Your task to perform on an android device: clear all cookies in the chrome app Image 0: 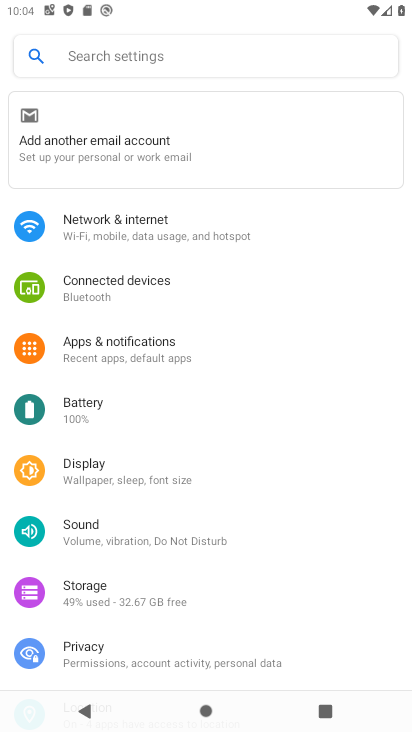
Step 0: press home button
Your task to perform on an android device: clear all cookies in the chrome app Image 1: 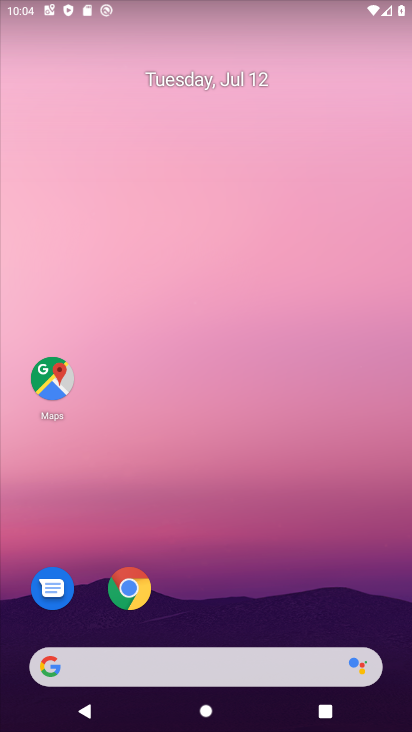
Step 1: click (132, 600)
Your task to perform on an android device: clear all cookies in the chrome app Image 2: 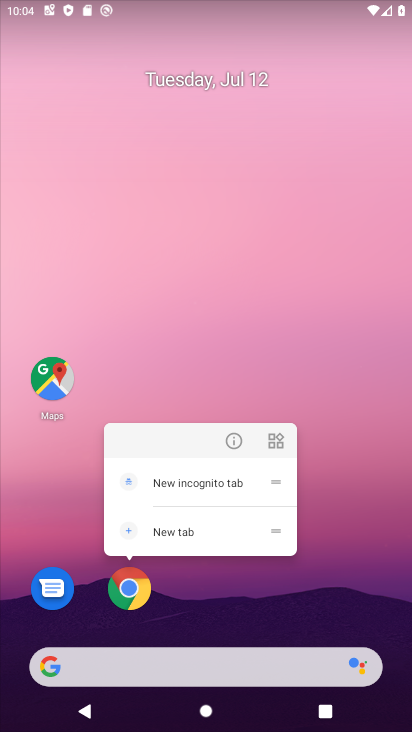
Step 2: click (132, 600)
Your task to perform on an android device: clear all cookies in the chrome app Image 3: 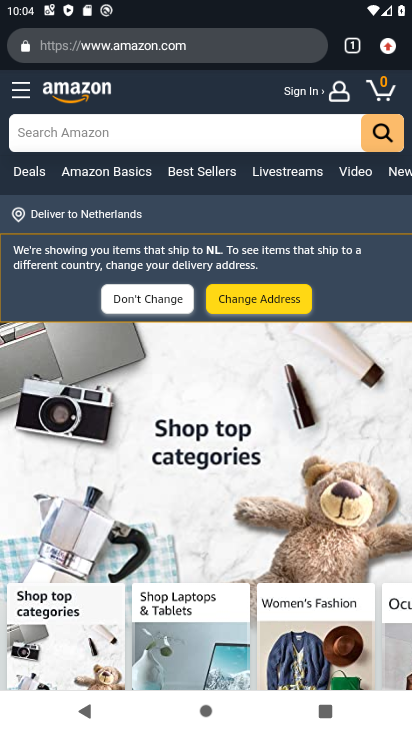
Step 3: drag from (394, 48) to (261, 595)
Your task to perform on an android device: clear all cookies in the chrome app Image 4: 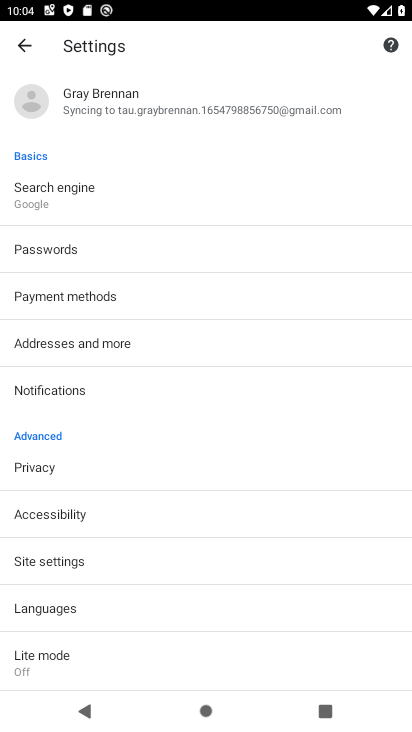
Step 4: click (64, 468)
Your task to perform on an android device: clear all cookies in the chrome app Image 5: 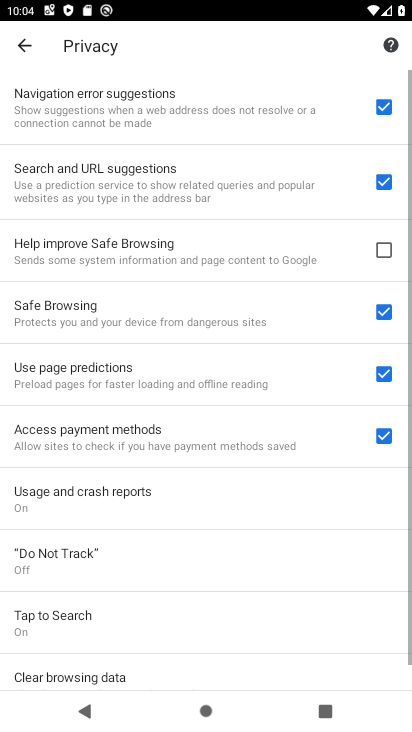
Step 5: drag from (91, 617) to (190, 323)
Your task to perform on an android device: clear all cookies in the chrome app Image 6: 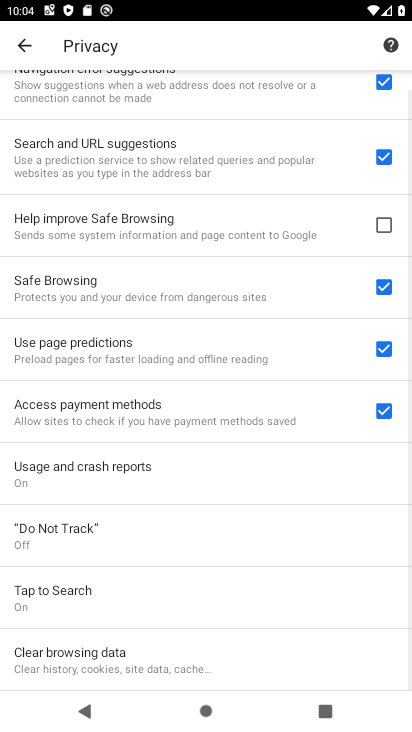
Step 6: click (108, 648)
Your task to perform on an android device: clear all cookies in the chrome app Image 7: 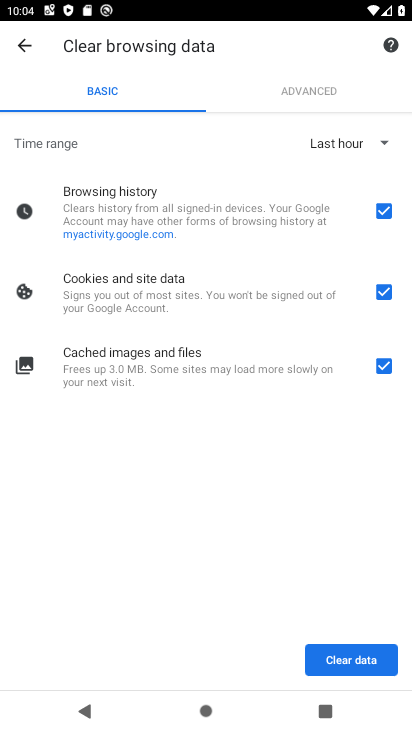
Step 7: click (378, 358)
Your task to perform on an android device: clear all cookies in the chrome app Image 8: 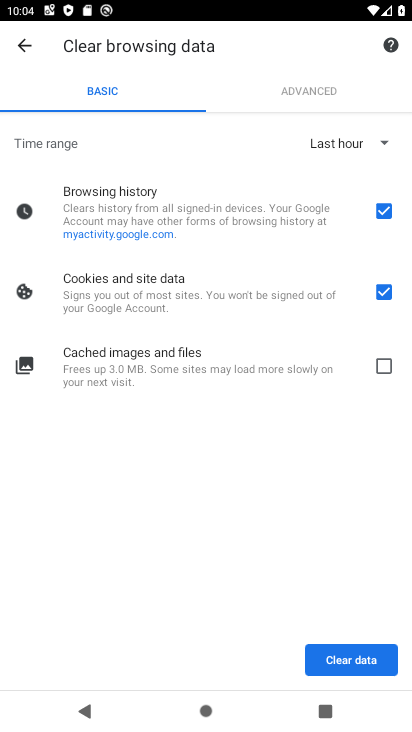
Step 8: click (389, 209)
Your task to perform on an android device: clear all cookies in the chrome app Image 9: 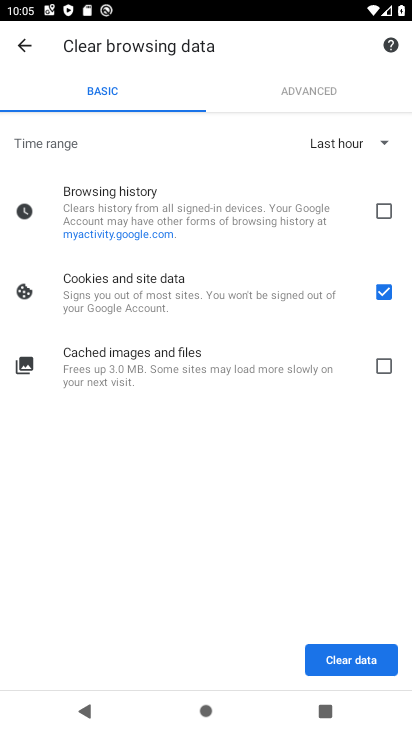
Step 9: click (357, 645)
Your task to perform on an android device: clear all cookies in the chrome app Image 10: 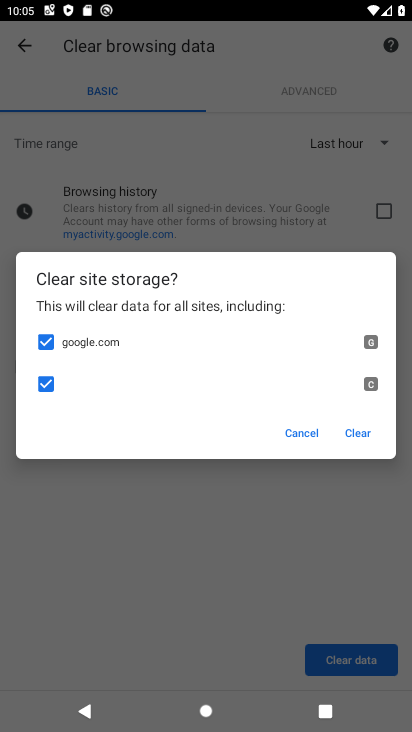
Step 10: click (362, 441)
Your task to perform on an android device: clear all cookies in the chrome app Image 11: 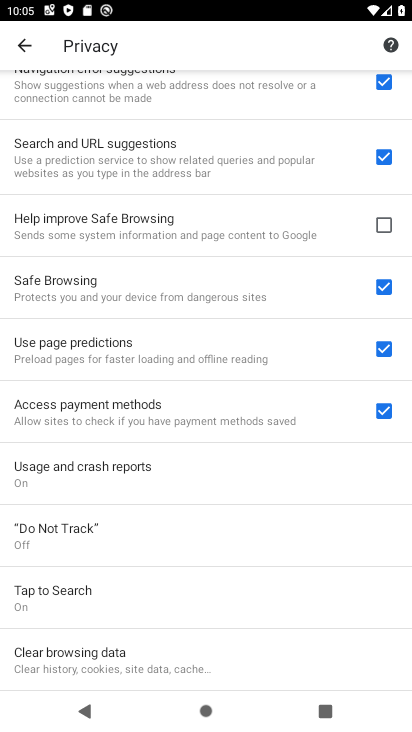
Step 11: task complete